Your task to perform on an android device: Open Google Maps Image 0: 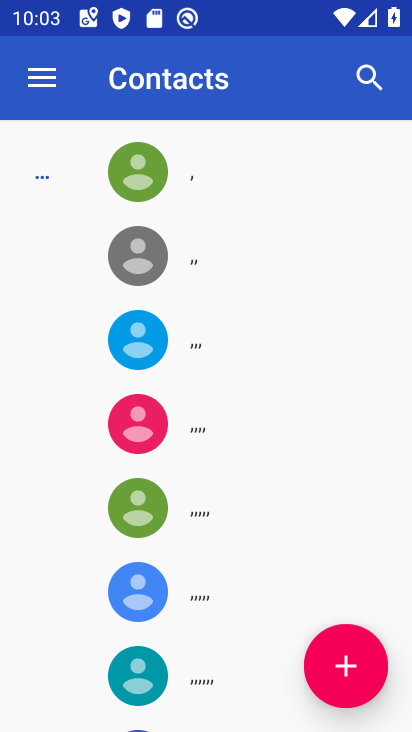
Step 0: press home button
Your task to perform on an android device: Open Google Maps Image 1: 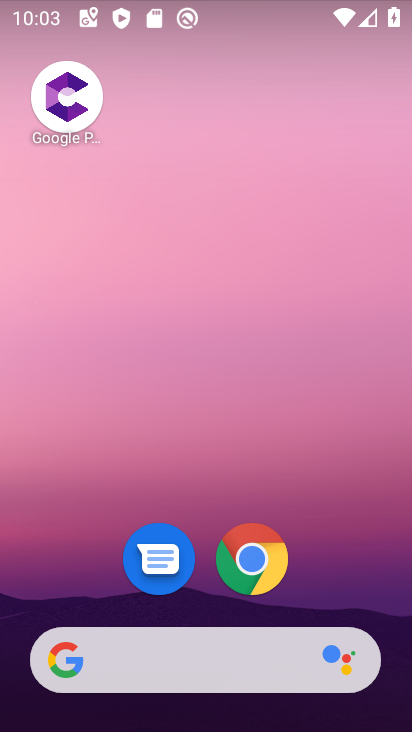
Step 1: drag from (84, 635) to (162, 80)
Your task to perform on an android device: Open Google Maps Image 2: 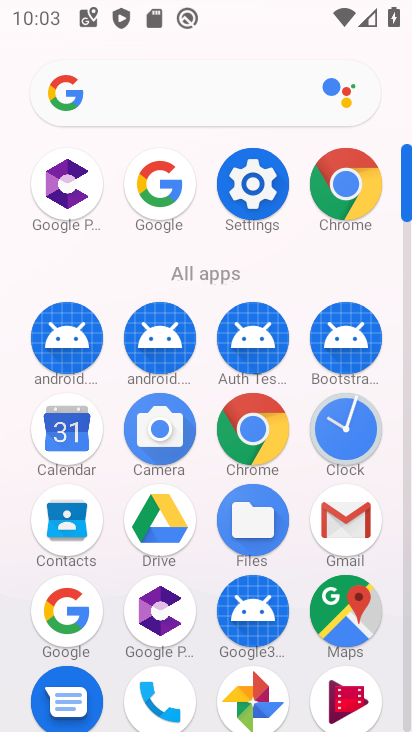
Step 2: click (348, 616)
Your task to perform on an android device: Open Google Maps Image 3: 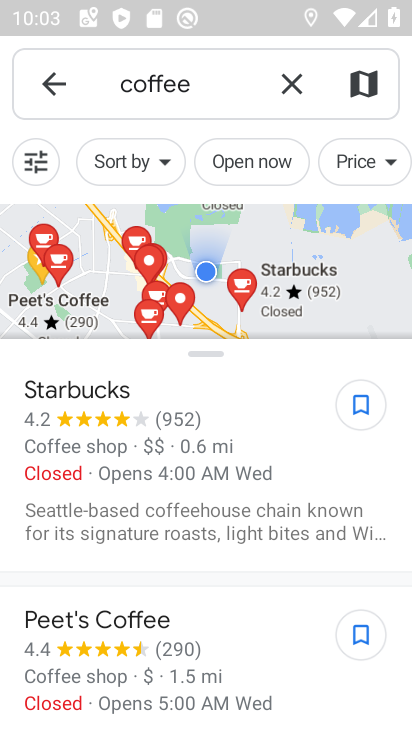
Step 3: task complete